Your task to perform on an android device: turn on data saver in the chrome app Image 0: 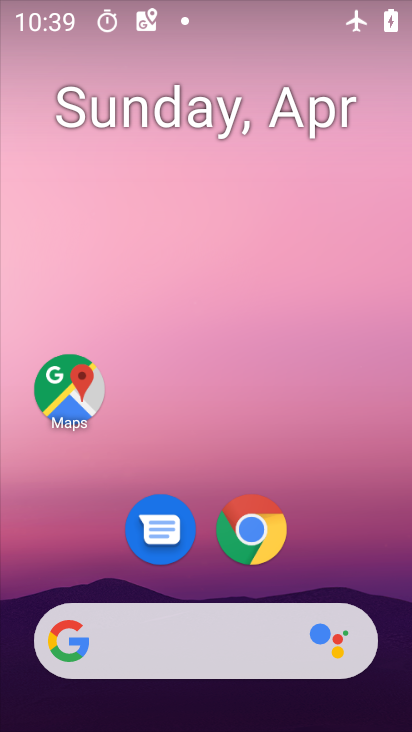
Step 0: click (258, 524)
Your task to perform on an android device: turn on data saver in the chrome app Image 1: 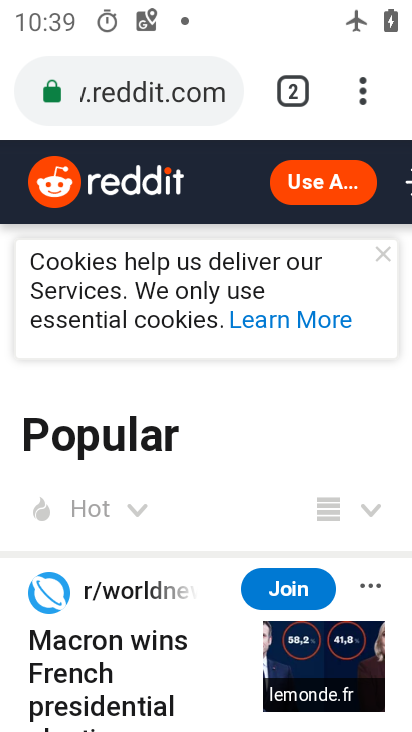
Step 1: click (360, 82)
Your task to perform on an android device: turn on data saver in the chrome app Image 2: 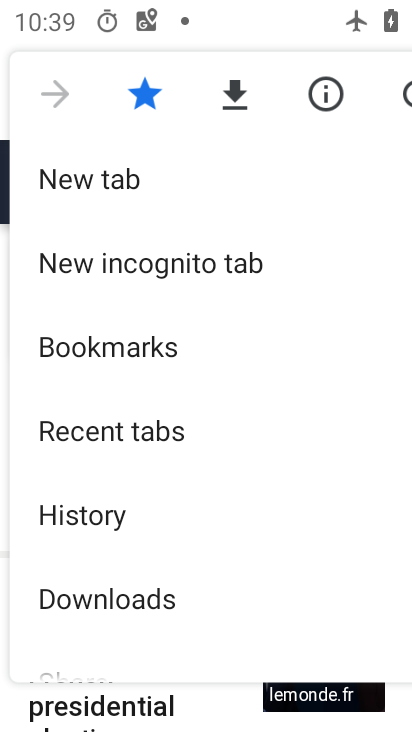
Step 2: drag from (147, 454) to (166, 269)
Your task to perform on an android device: turn on data saver in the chrome app Image 3: 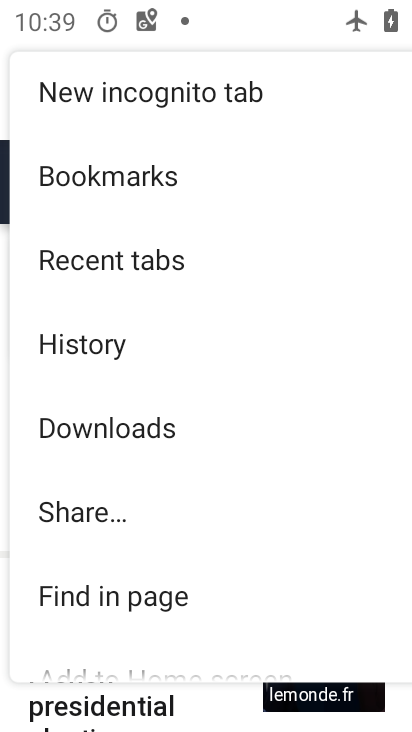
Step 3: drag from (145, 609) to (177, 280)
Your task to perform on an android device: turn on data saver in the chrome app Image 4: 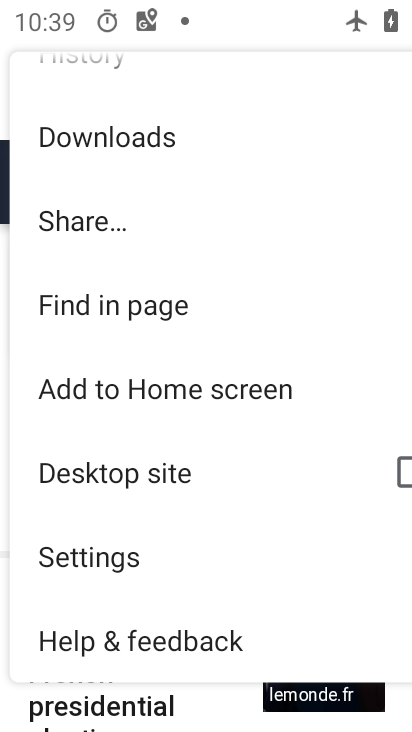
Step 4: click (130, 548)
Your task to perform on an android device: turn on data saver in the chrome app Image 5: 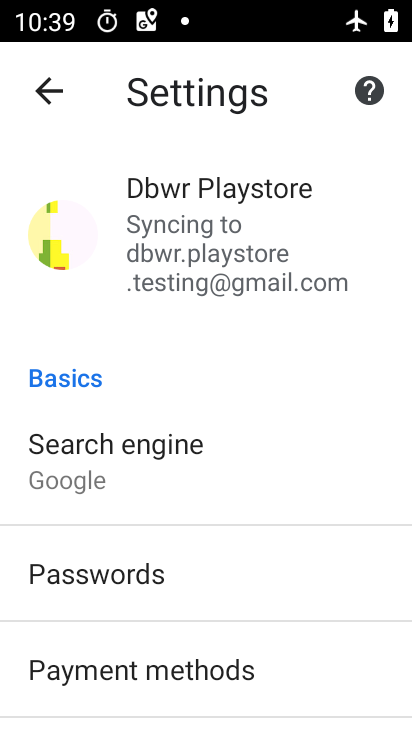
Step 5: drag from (168, 691) to (185, 124)
Your task to perform on an android device: turn on data saver in the chrome app Image 6: 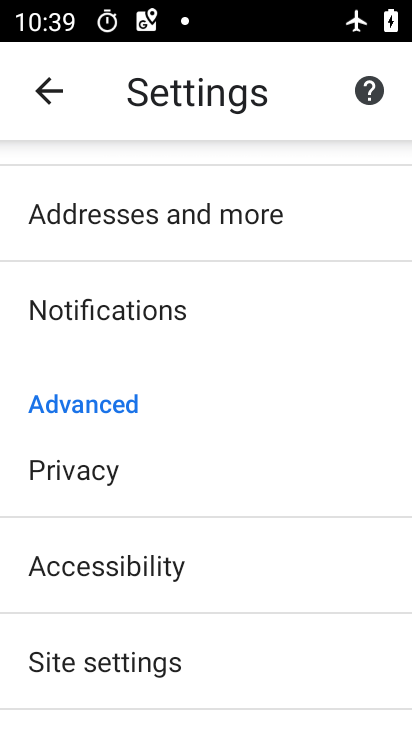
Step 6: drag from (172, 632) to (203, 214)
Your task to perform on an android device: turn on data saver in the chrome app Image 7: 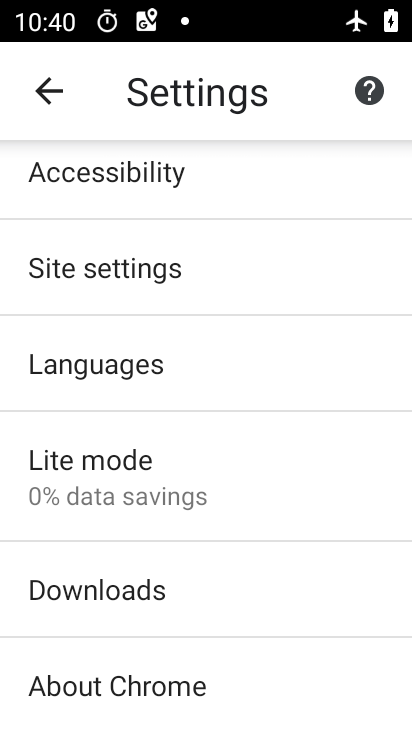
Step 7: click (143, 485)
Your task to perform on an android device: turn on data saver in the chrome app Image 8: 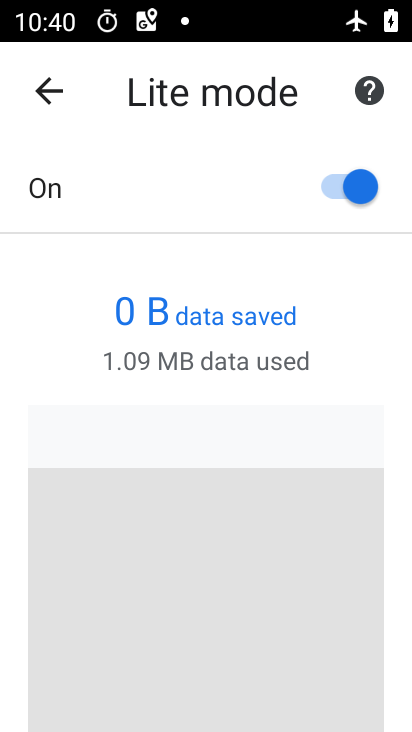
Step 8: task complete